Your task to perform on an android device: turn off notifications settings in the gmail app Image 0: 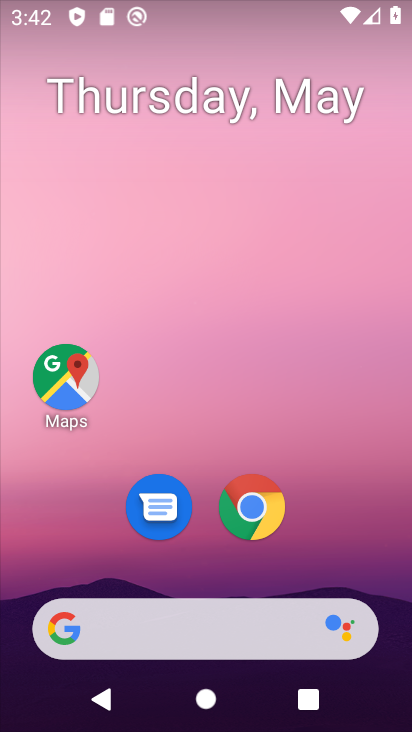
Step 0: drag from (336, 573) to (158, 3)
Your task to perform on an android device: turn off notifications settings in the gmail app Image 1: 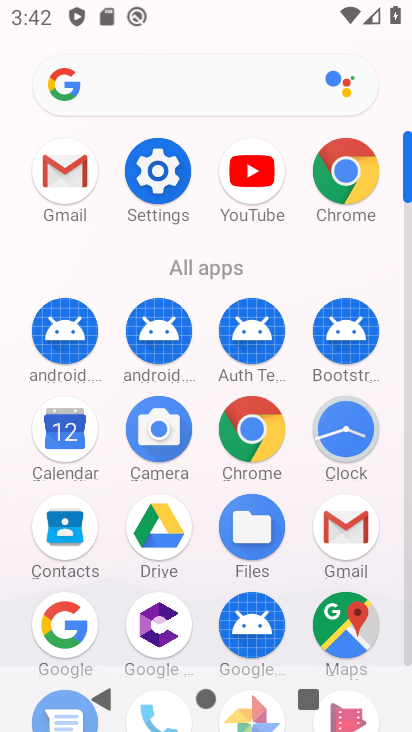
Step 1: click (336, 542)
Your task to perform on an android device: turn off notifications settings in the gmail app Image 2: 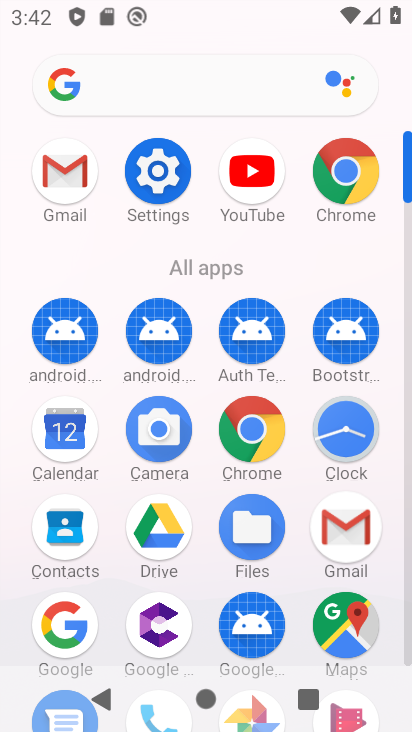
Step 2: click (343, 533)
Your task to perform on an android device: turn off notifications settings in the gmail app Image 3: 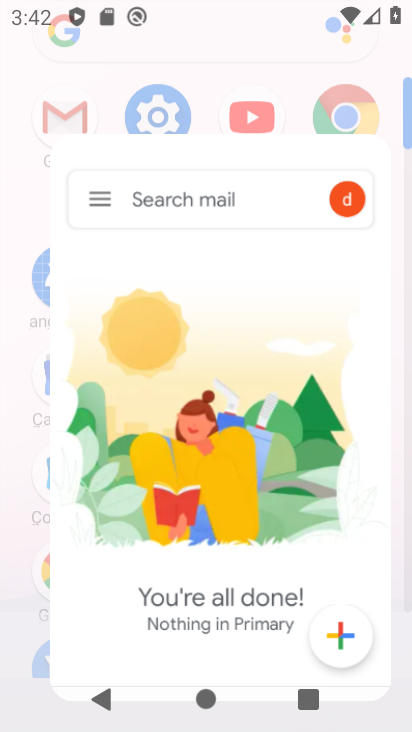
Step 3: click (349, 540)
Your task to perform on an android device: turn off notifications settings in the gmail app Image 4: 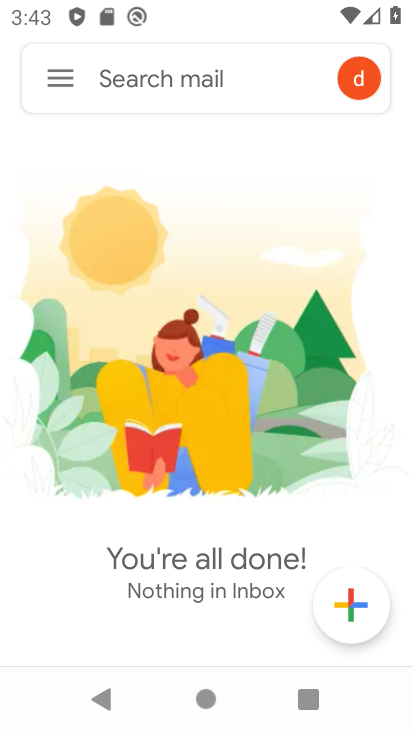
Step 4: press home button
Your task to perform on an android device: turn off notifications settings in the gmail app Image 5: 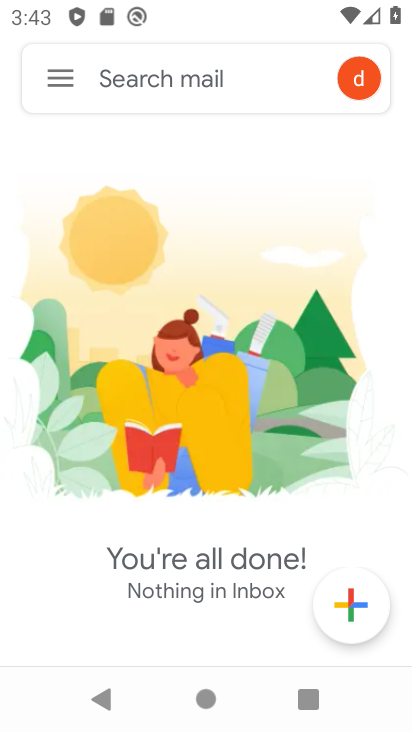
Step 5: press home button
Your task to perform on an android device: turn off notifications settings in the gmail app Image 6: 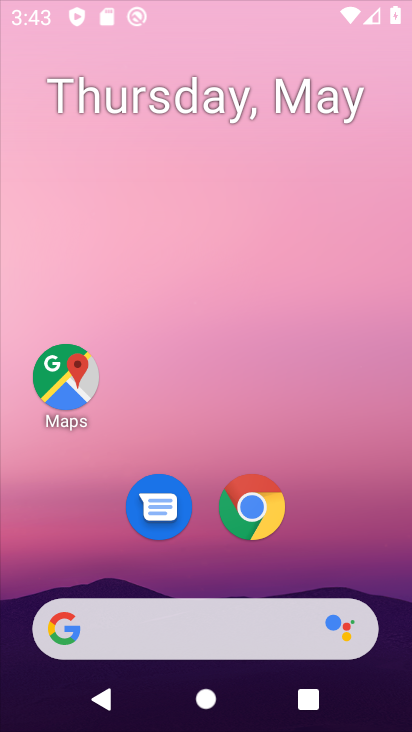
Step 6: press home button
Your task to perform on an android device: turn off notifications settings in the gmail app Image 7: 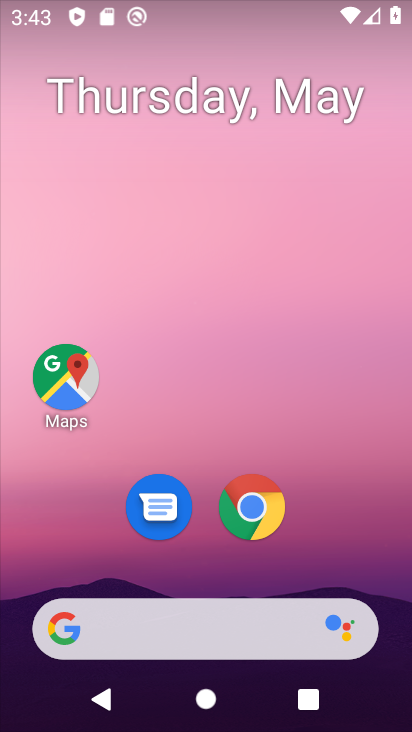
Step 7: drag from (319, 496) to (176, 83)
Your task to perform on an android device: turn off notifications settings in the gmail app Image 8: 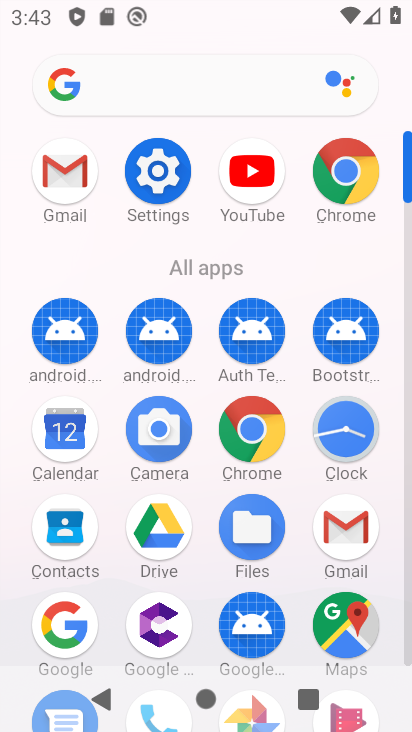
Step 8: click (339, 522)
Your task to perform on an android device: turn off notifications settings in the gmail app Image 9: 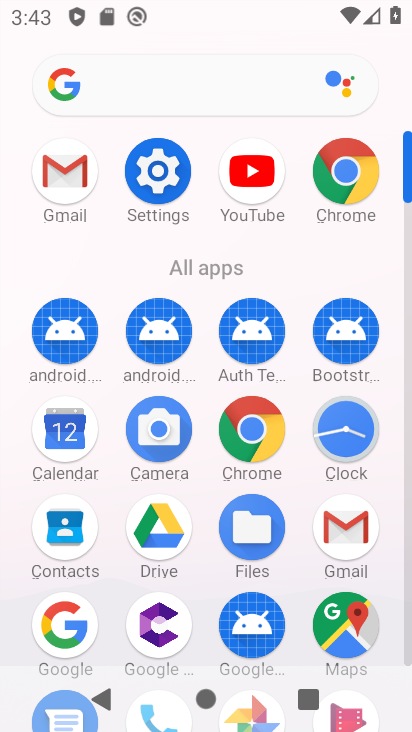
Step 9: click (341, 520)
Your task to perform on an android device: turn off notifications settings in the gmail app Image 10: 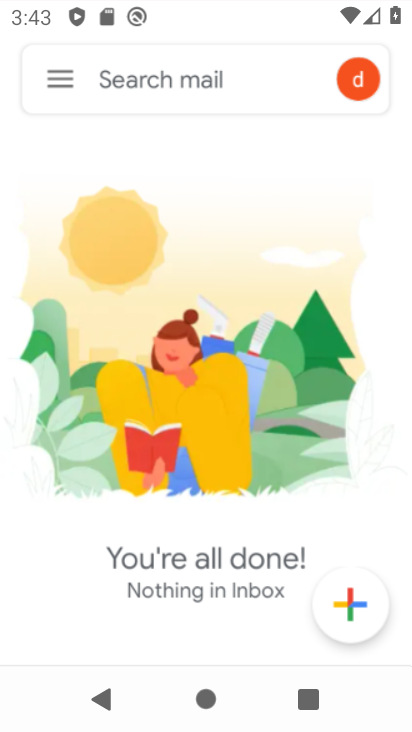
Step 10: click (340, 535)
Your task to perform on an android device: turn off notifications settings in the gmail app Image 11: 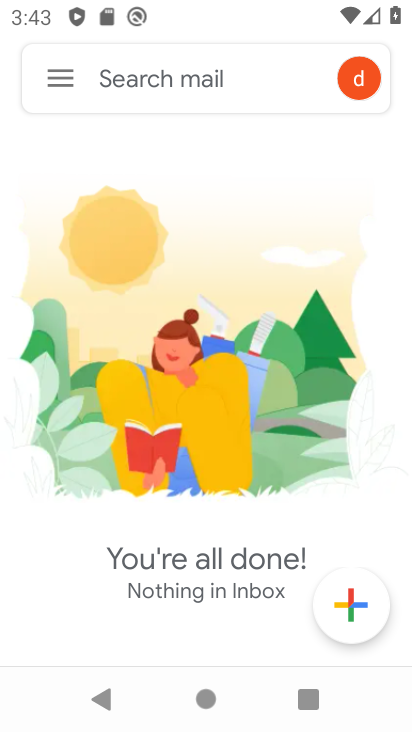
Step 11: click (67, 79)
Your task to perform on an android device: turn off notifications settings in the gmail app Image 12: 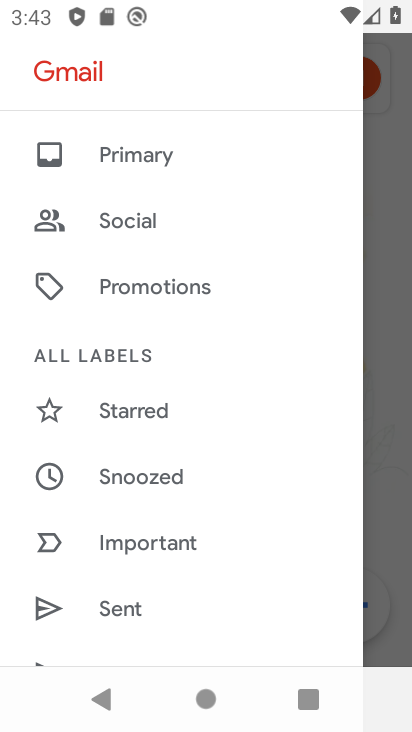
Step 12: drag from (185, 516) to (104, 62)
Your task to perform on an android device: turn off notifications settings in the gmail app Image 13: 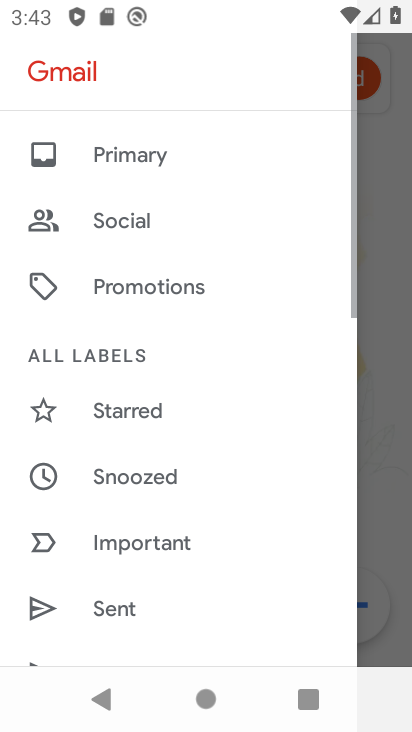
Step 13: drag from (170, 372) to (168, 176)
Your task to perform on an android device: turn off notifications settings in the gmail app Image 14: 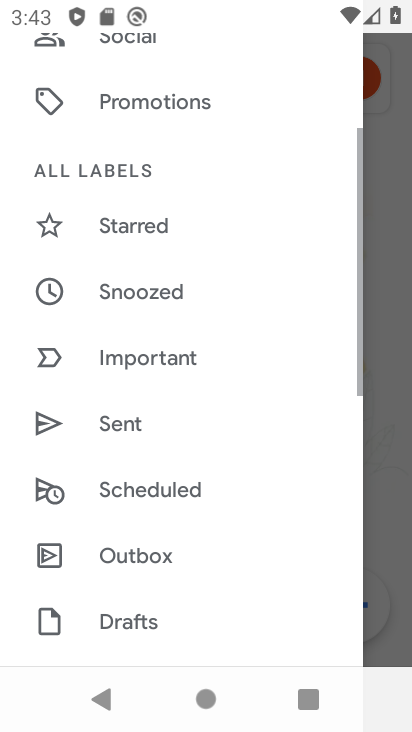
Step 14: drag from (161, 466) to (172, 119)
Your task to perform on an android device: turn off notifications settings in the gmail app Image 15: 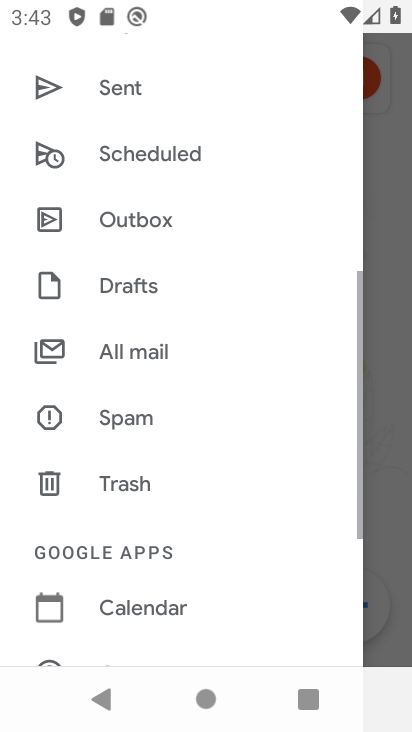
Step 15: drag from (191, 432) to (156, 97)
Your task to perform on an android device: turn off notifications settings in the gmail app Image 16: 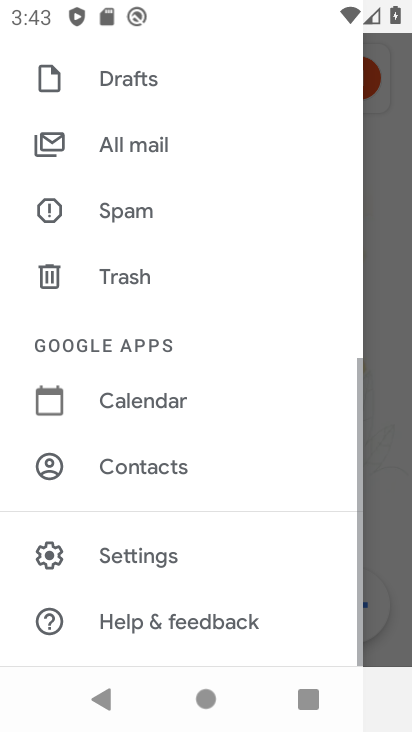
Step 16: drag from (155, 436) to (142, 141)
Your task to perform on an android device: turn off notifications settings in the gmail app Image 17: 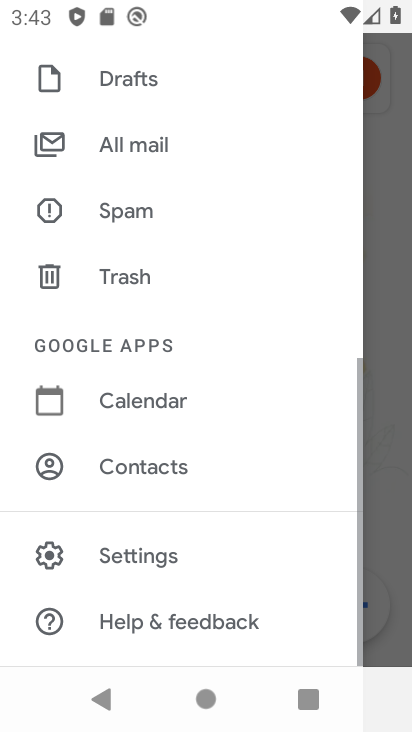
Step 17: click (143, 561)
Your task to perform on an android device: turn off notifications settings in the gmail app Image 18: 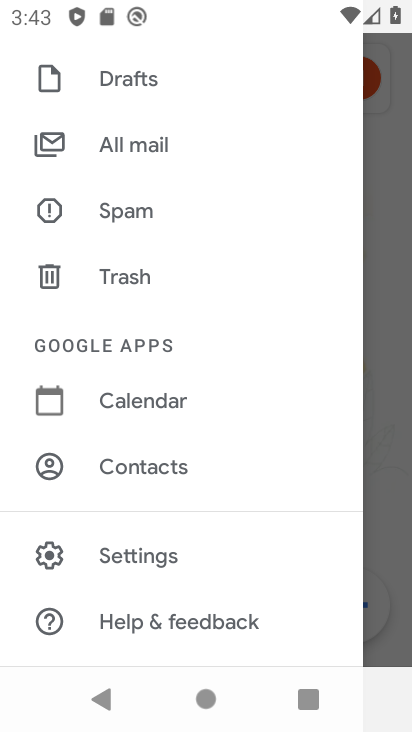
Step 18: click (134, 555)
Your task to perform on an android device: turn off notifications settings in the gmail app Image 19: 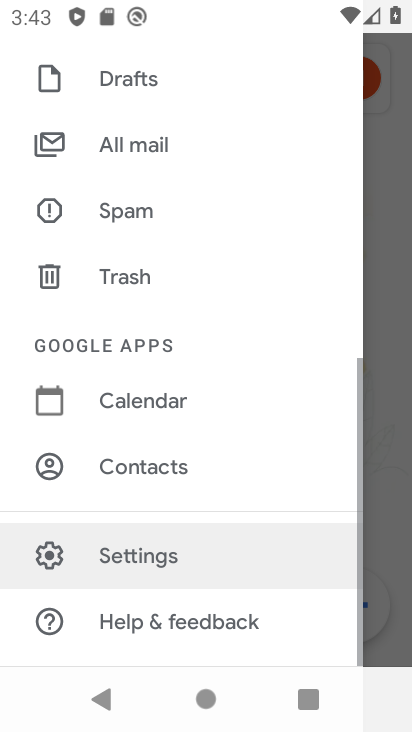
Step 19: click (136, 561)
Your task to perform on an android device: turn off notifications settings in the gmail app Image 20: 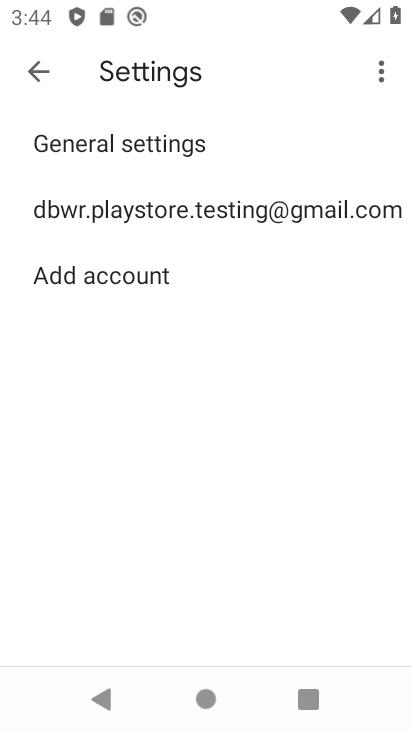
Step 20: click (163, 211)
Your task to perform on an android device: turn off notifications settings in the gmail app Image 21: 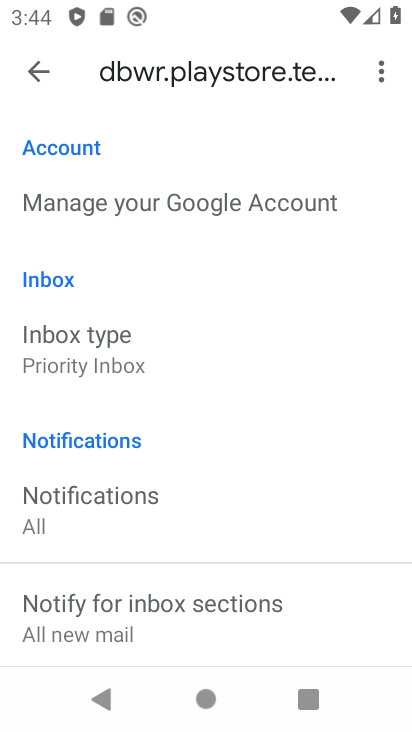
Step 21: click (98, 487)
Your task to perform on an android device: turn off notifications settings in the gmail app Image 22: 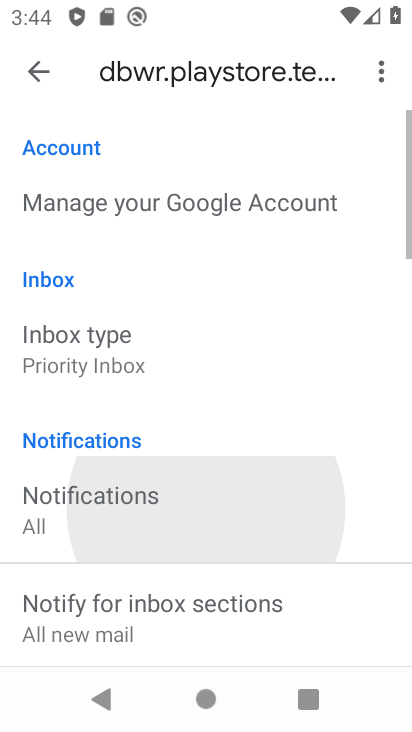
Step 22: click (98, 484)
Your task to perform on an android device: turn off notifications settings in the gmail app Image 23: 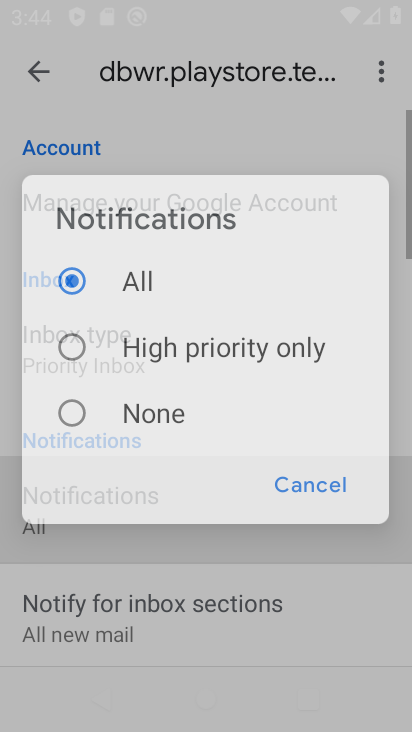
Step 23: click (100, 501)
Your task to perform on an android device: turn off notifications settings in the gmail app Image 24: 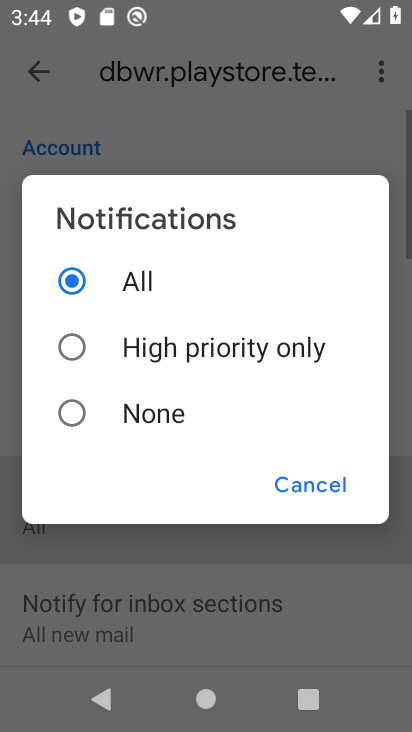
Step 24: click (100, 510)
Your task to perform on an android device: turn off notifications settings in the gmail app Image 25: 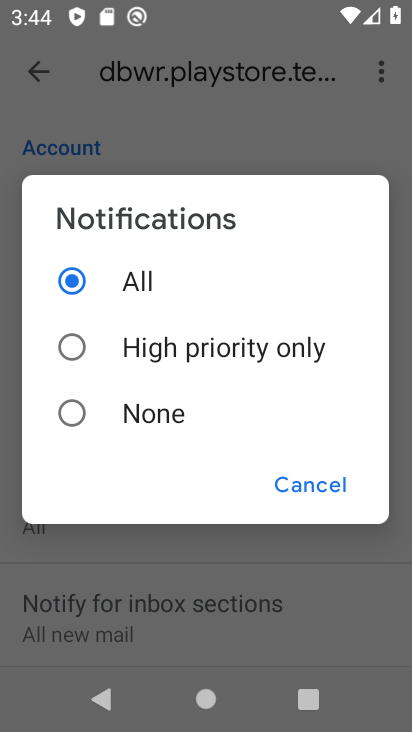
Step 25: click (66, 343)
Your task to perform on an android device: turn off notifications settings in the gmail app Image 26: 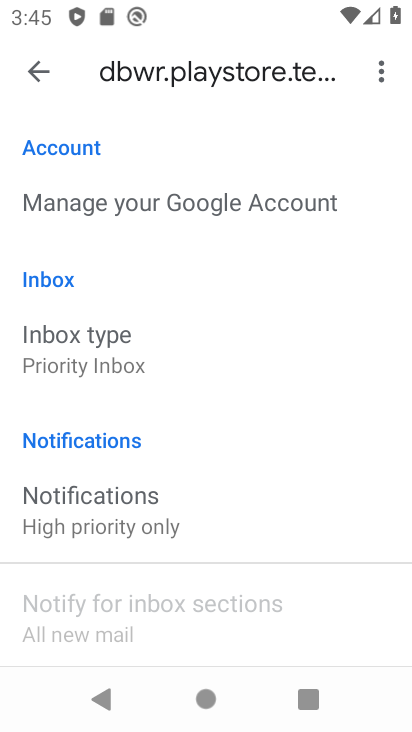
Step 26: click (102, 508)
Your task to perform on an android device: turn off notifications settings in the gmail app Image 27: 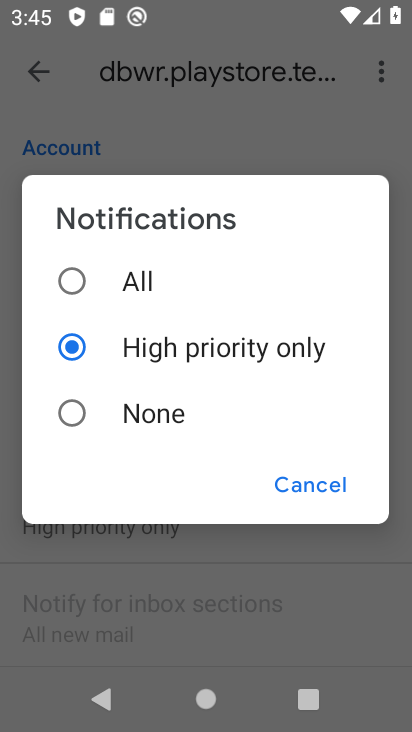
Step 27: click (73, 410)
Your task to perform on an android device: turn off notifications settings in the gmail app Image 28: 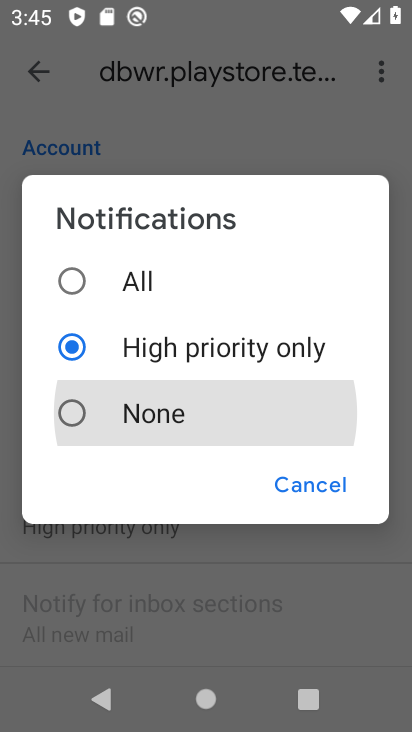
Step 28: click (72, 411)
Your task to perform on an android device: turn off notifications settings in the gmail app Image 29: 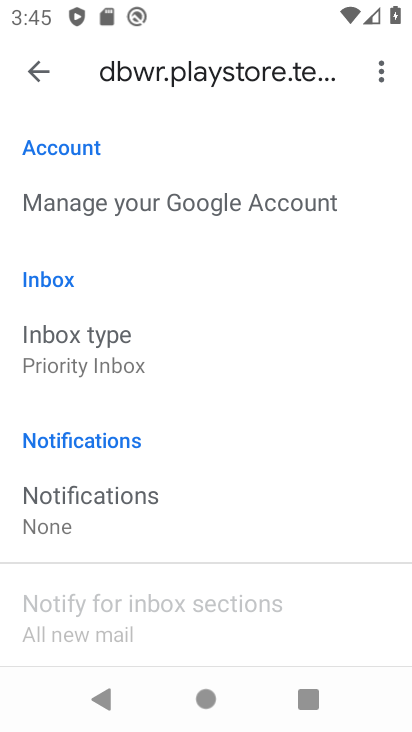
Step 29: task complete